Your task to perform on an android device: Open Yahoo.com Image 0: 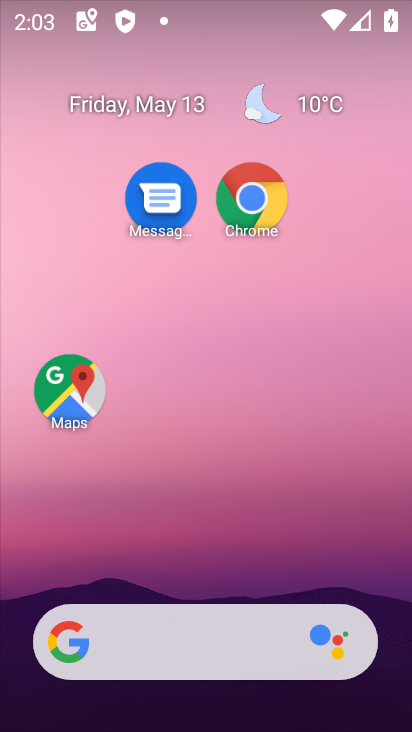
Step 0: drag from (203, 592) to (360, 383)
Your task to perform on an android device: Open Yahoo.com Image 1: 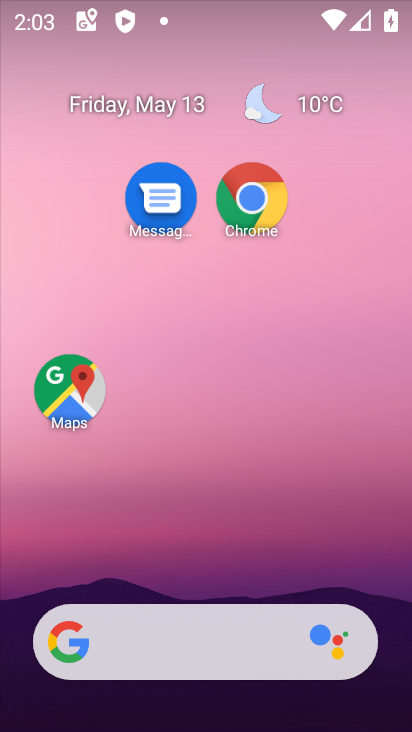
Step 1: click (263, 219)
Your task to perform on an android device: Open Yahoo.com Image 2: 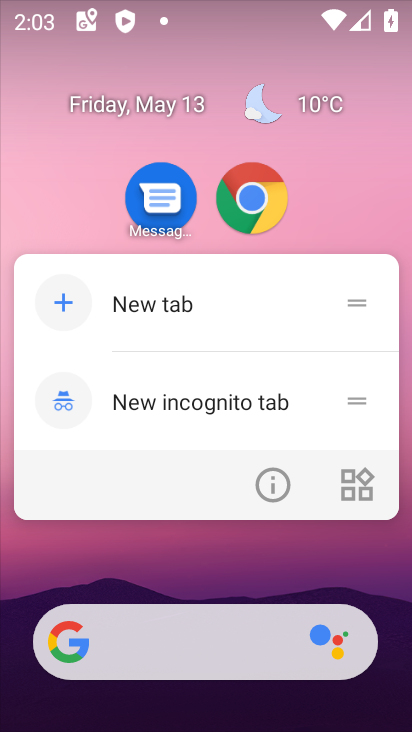
Step 2: click (266, 215)
Your task to perform on an android device: Open Yahoo.com Image 3: 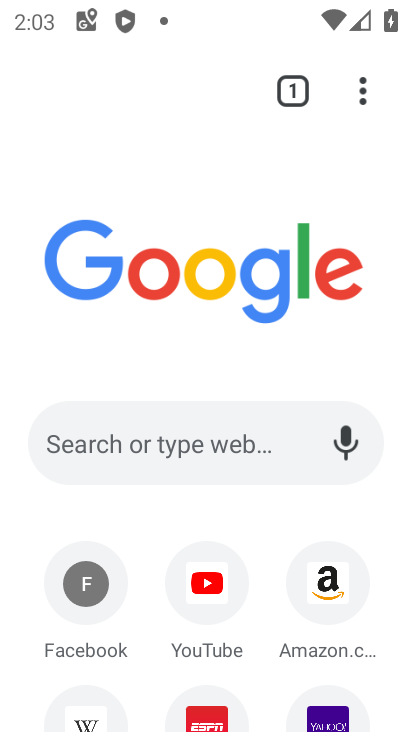
Step 3: click (317, 695)
Your task to perform on an android device: Open Yahoo.com Image 4: 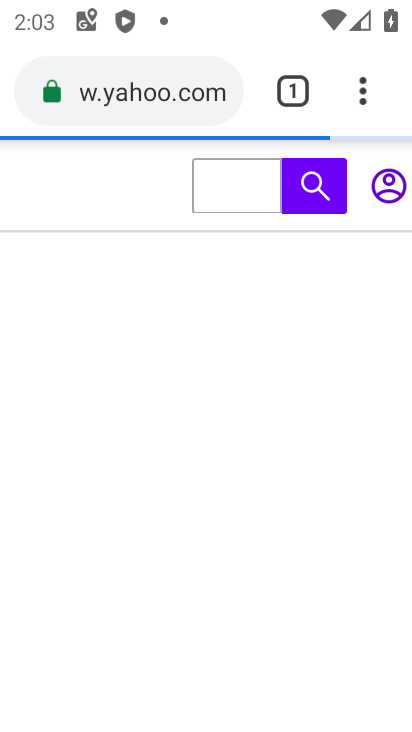
Step 4: task complete